Your task to perform on an android device: change text size in settings app Image 0: 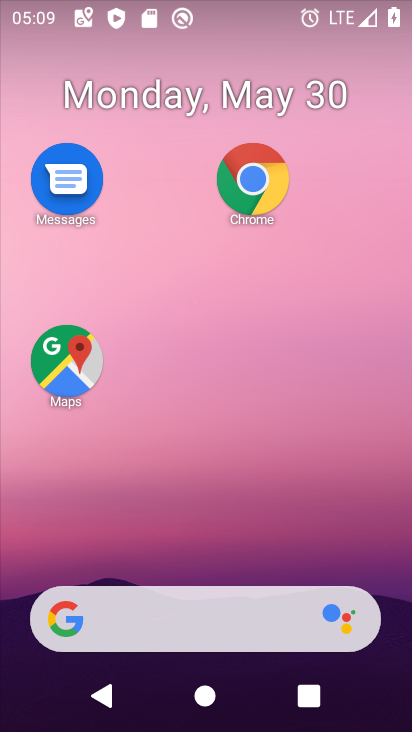
Step 0: click (72, 342)
Your task to perform on an android device: change text size in settings app Image 1: 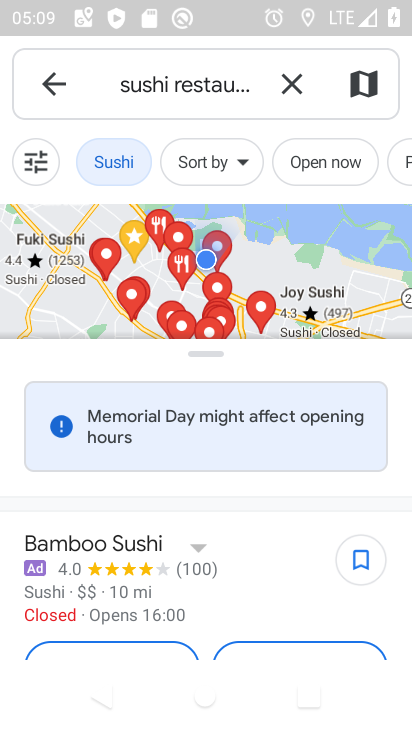
Step 1: press home button
Your task to perform on an android device: change text size in settings app Image 2: 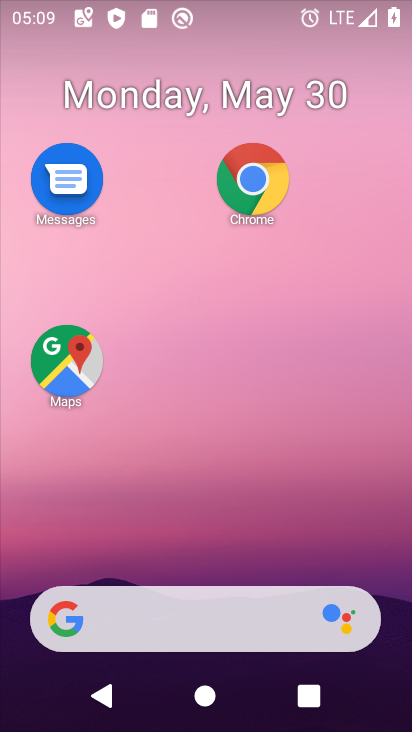
Step 2: drag from (169, 567) to (210, 6)
Your task to perform on an android device: change text size in settings app Image 3: 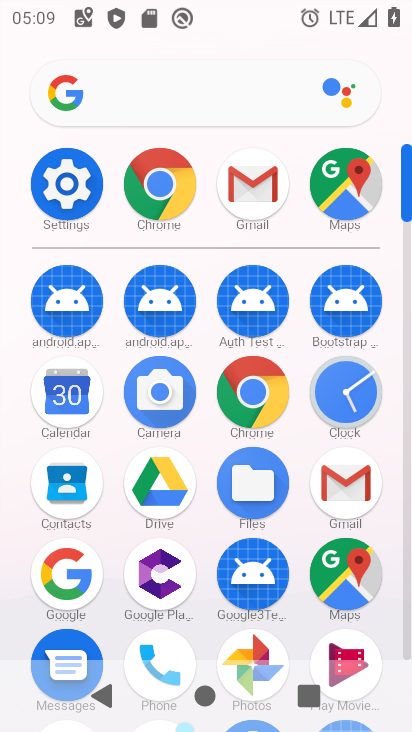
Step 3: click (56, 200)
Your task to perform on an android device: change text size in settings app Image 4: 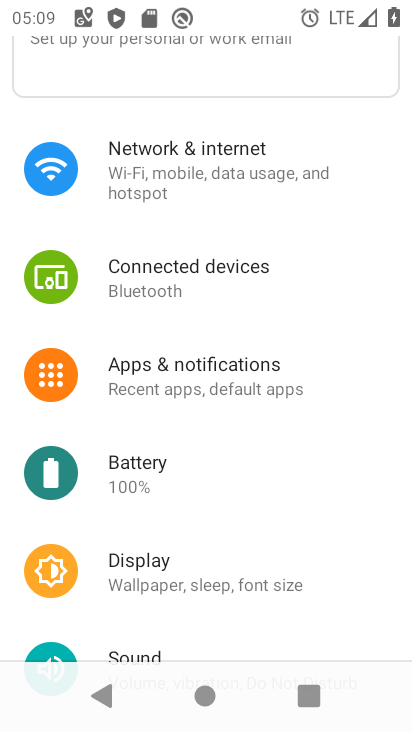
Step 4: drag from (197, 589) to (186, 245)
Your task to perform on an android device: change text size in settings app Image 5: 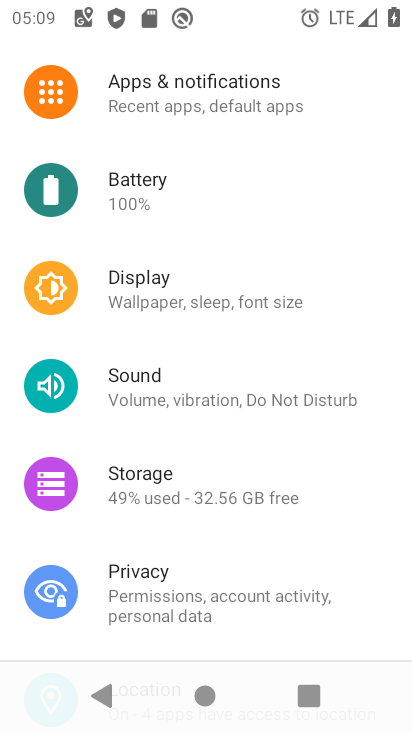
Step 5: click (132, 295)
Your task to perform on an android device: change text size in settings app Image 6: 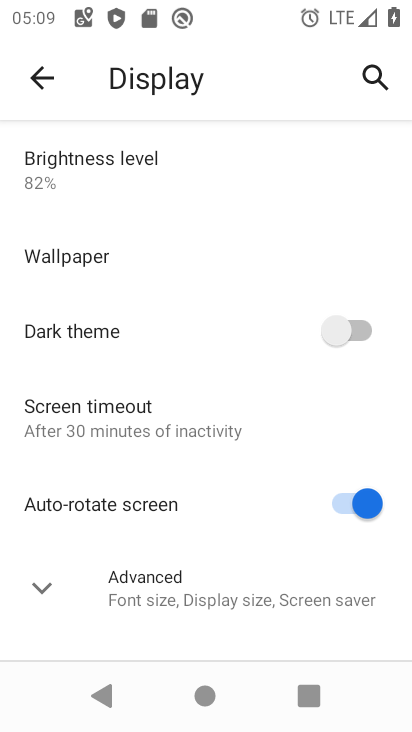
Step 6: click (143, 592)
Your task to perform on an android device: change text size in settings app Image 7: 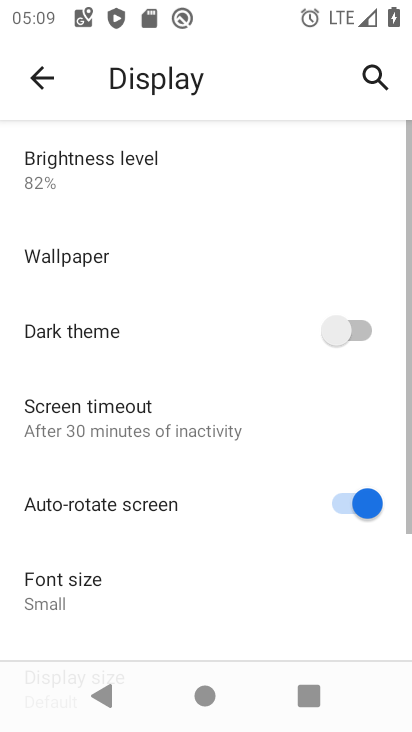
Step 7: drag from (141, 590) to (144, 284)
Your task to perform on an android device: change text size in settings app Image 8: 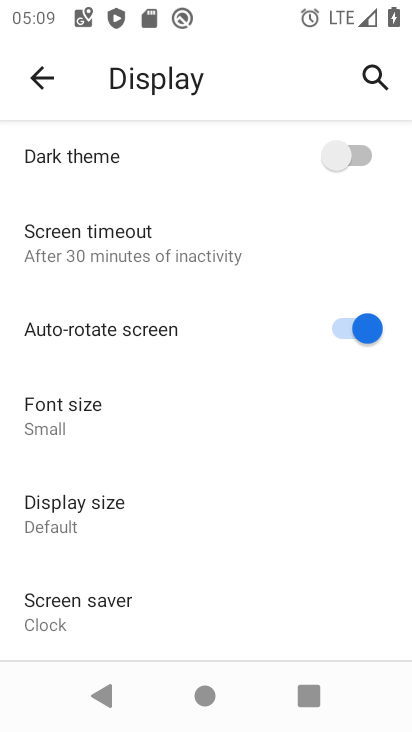
Step 8: click (36, 419)
Your task to perform on an android device: change text size in settings app Image 9: 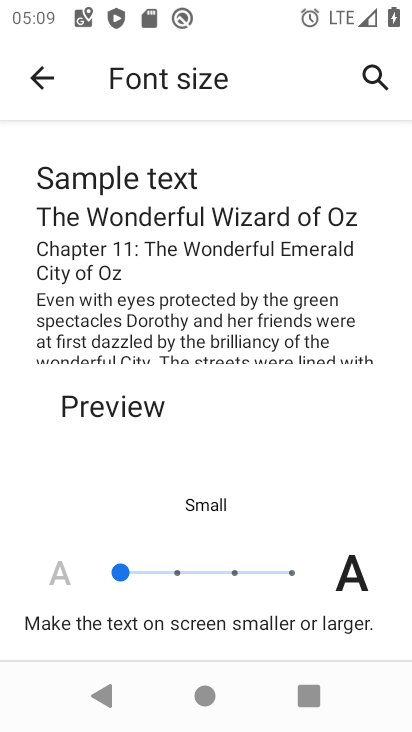
Step 9: click (185, 573)
Your task to perform on an android device: change text size in settings app Image 10: 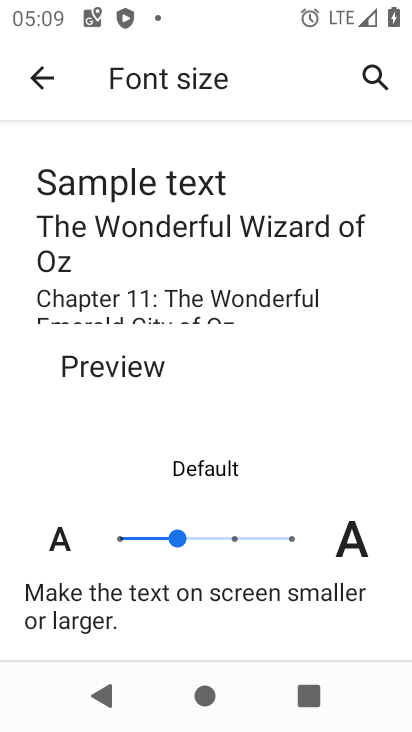
Step 10: task complete